Your task to perform on an android device: open chrome and create a bookmark for the current page Image 0: 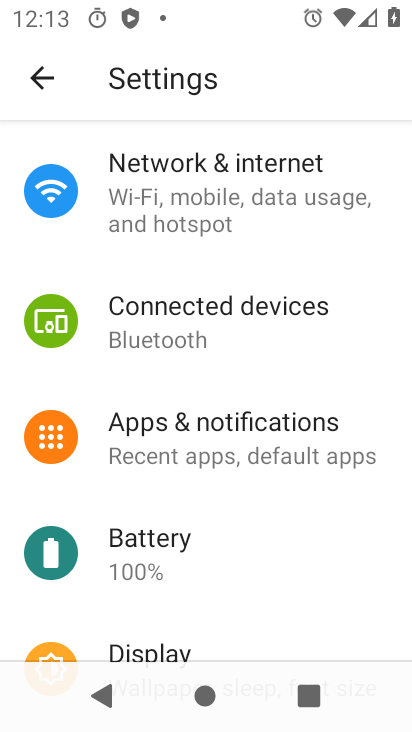
Step 0: press back button
Your task to perform on an android device: open chrome and create a bookmark for the current page Image 1: 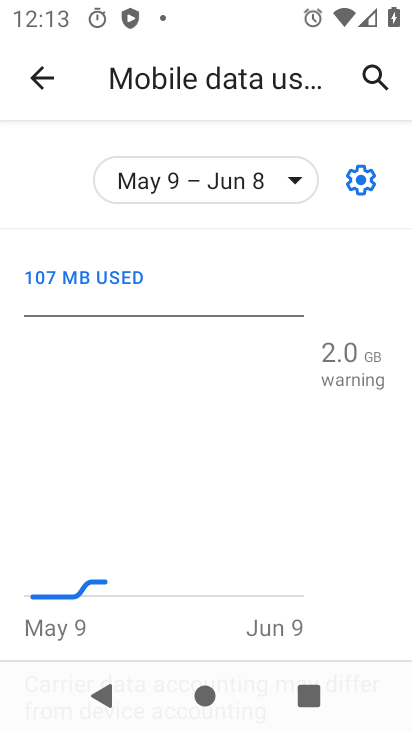
Step 1: press back button
Your task to perform on an android device: open chrome and create a bookmark for the current page Image 2: 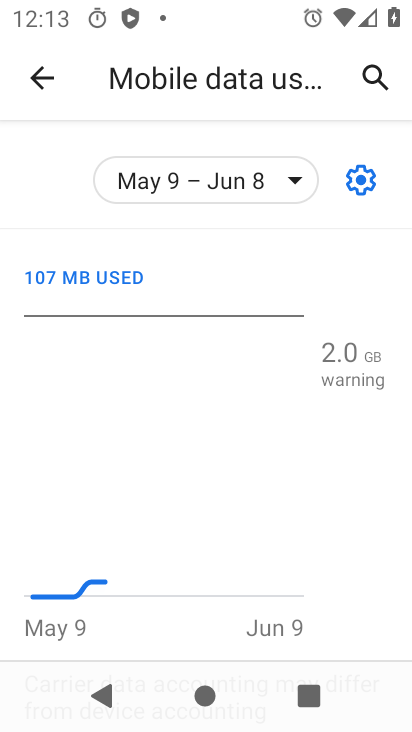
Step 2: press back button
Your task to perform on an android device: open chrome and create a bookmark for the current page Image 3: 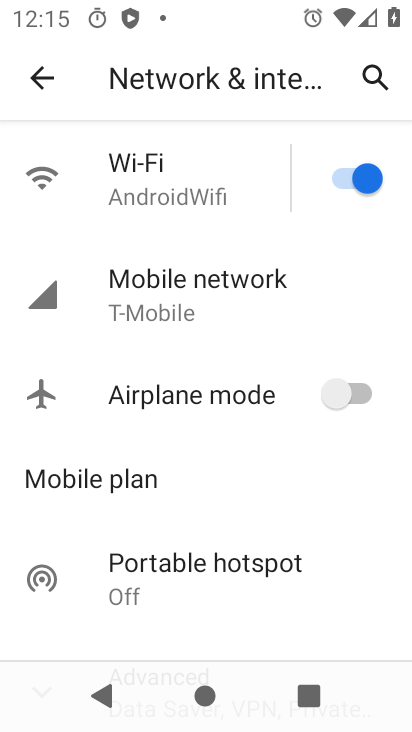
Step 3: press back button
Your task to perform on an android device: open chrome and create a bookmark for the current page Image 4: 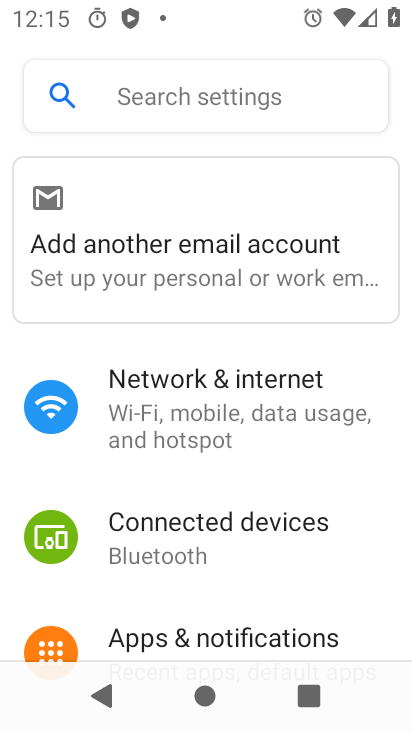
Step 4: press back button
Your task to perform on an android device: open chrome and create a bookmark for the current page Image 5: 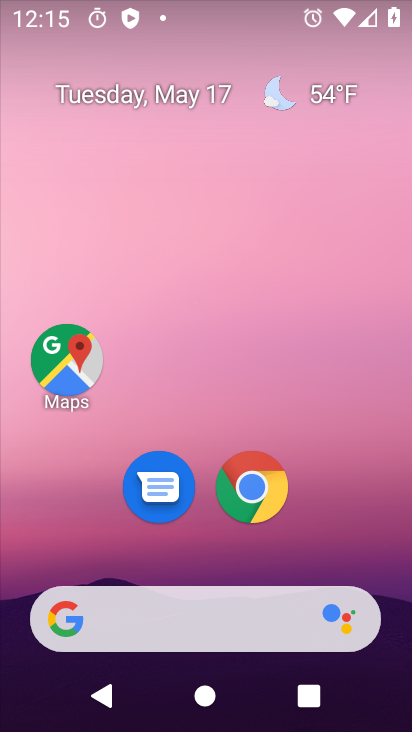
Step 5: click (227, 508)
Your task to perform on an android device: open chrome and create a bookmark for the current page Image 6: 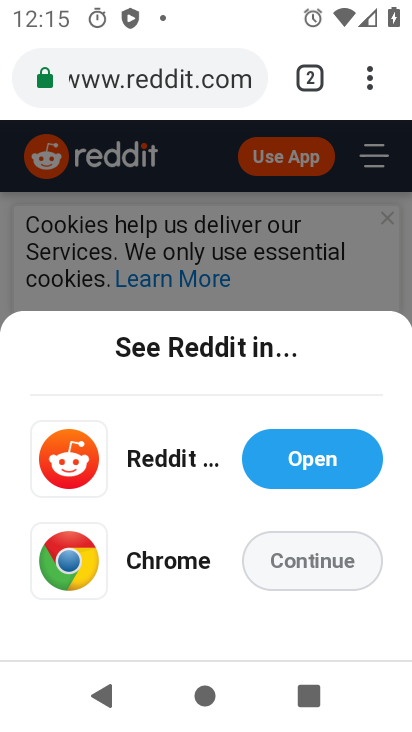
Step 6: task complete